Your task to perform on an android device: Go to Android settings Image 0: 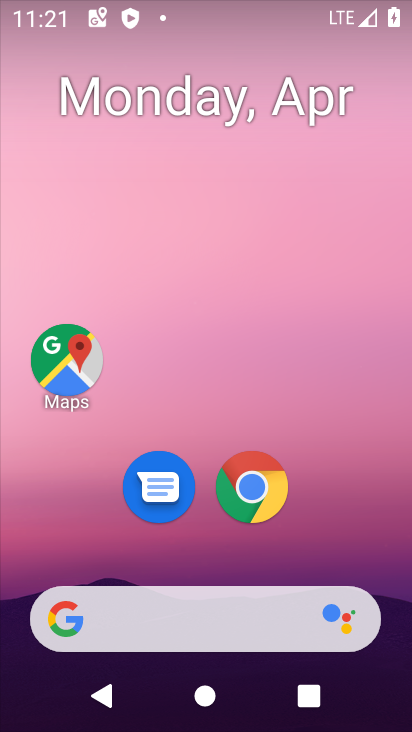
Step 0: drag from (350, 528) to (251, 142)
Your task to perform on an android device: Go to Android settings Image 1: 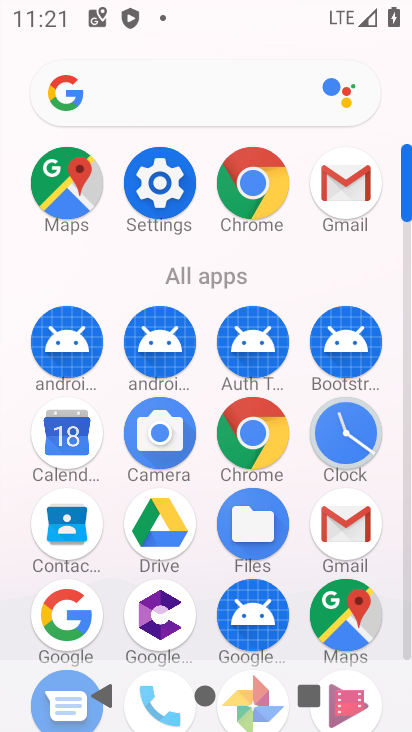
Step 1: click (406, 647)
Your task to perform on an android device: Go to Android settings Image 2: 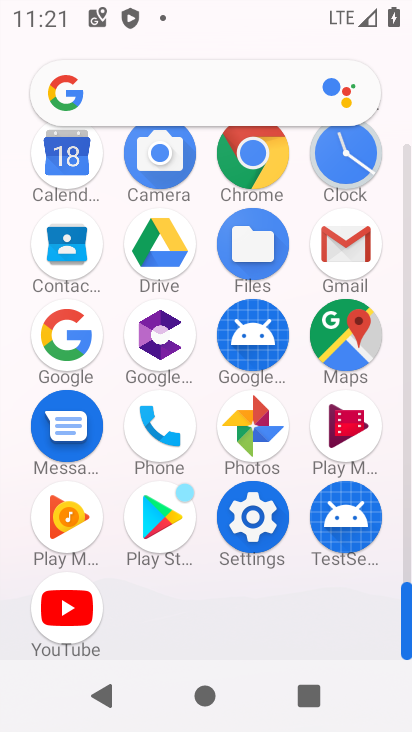
Step 2: click (260, 522)
Your task to perform on an android device: Go to Android settings Image 3: 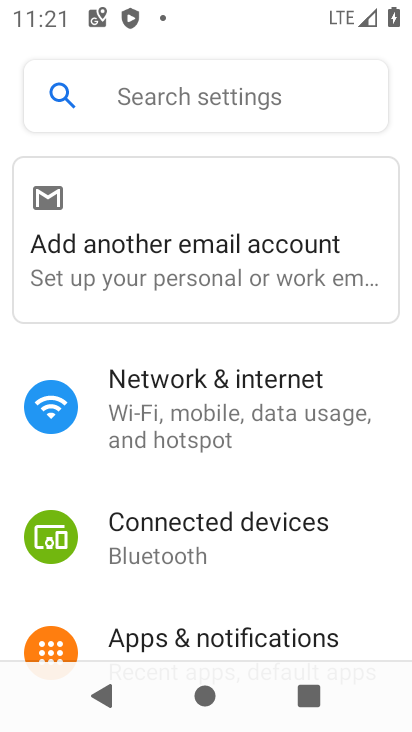
Step 3: drag from (405, 615) to (378, 184)
Your task to perform on an android device: Go to Android settings Image 4: 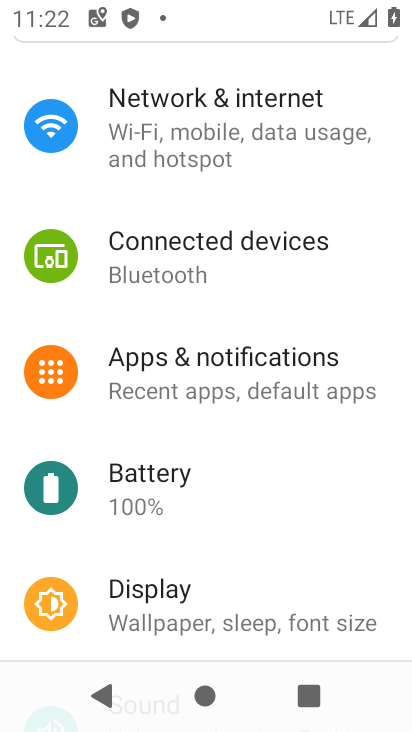
Step 4: drag from (290, 534) to (232, 135)
Your task to perform on an android device: Go to Android settings Image 5: 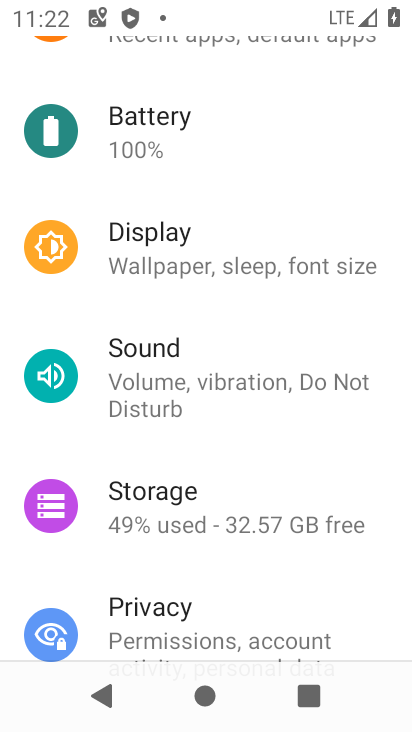
Step 5: drag from (296, 584) to (208, 156)
Your task to perform on an android device: Go to Android settings Image 6: 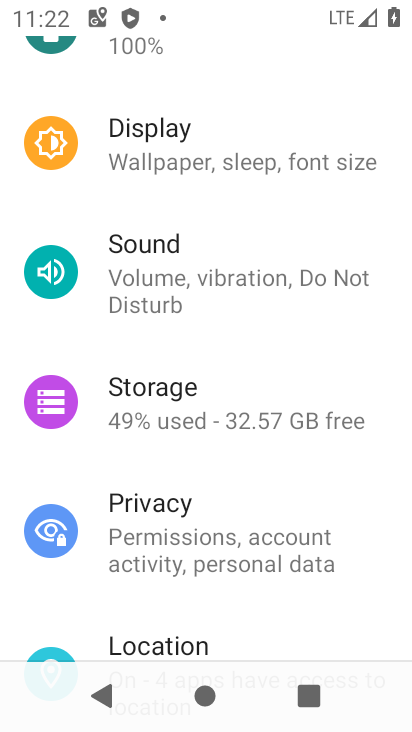
Step 6: drag from (276, 588) to (204, 137)
Your task to perform on an android device: Go to Android settings Image 7: 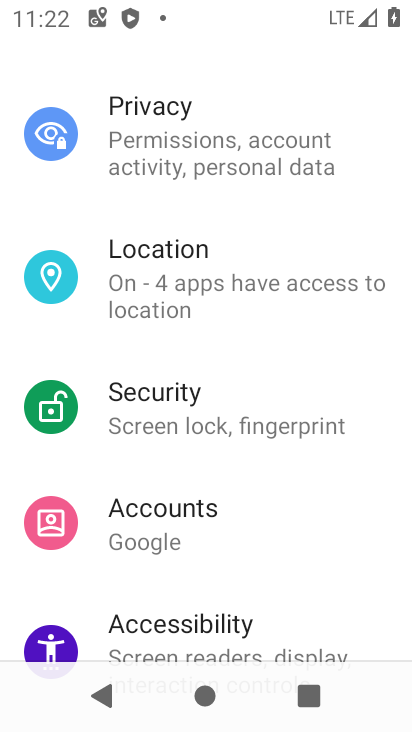
Step 7: drag from (300, 573) to (223, 135)
Your task to perform on an android device: Go to Android settings Image 8: 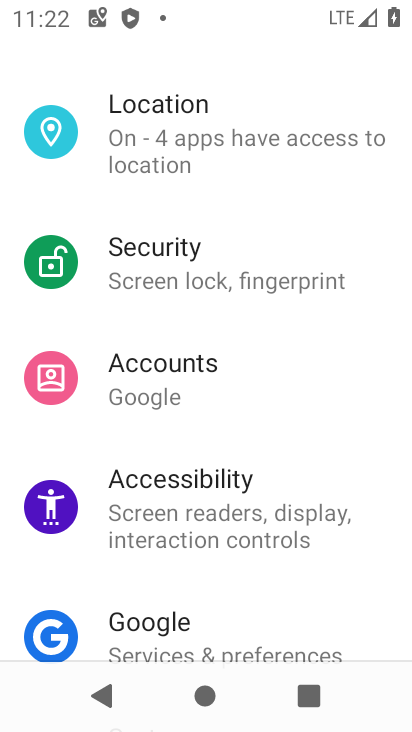
Step 8: drag from (280, 598) to (233, 200)
Your task to perform on an android device: Go to Android settings Image 9: 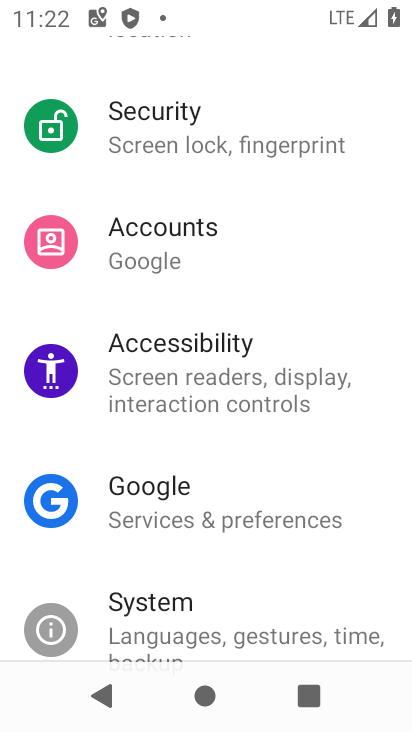
Step 9: drag from (317, 556) to (266, 273)
Your task to perform on an android device: Go to Android settings Image 10: 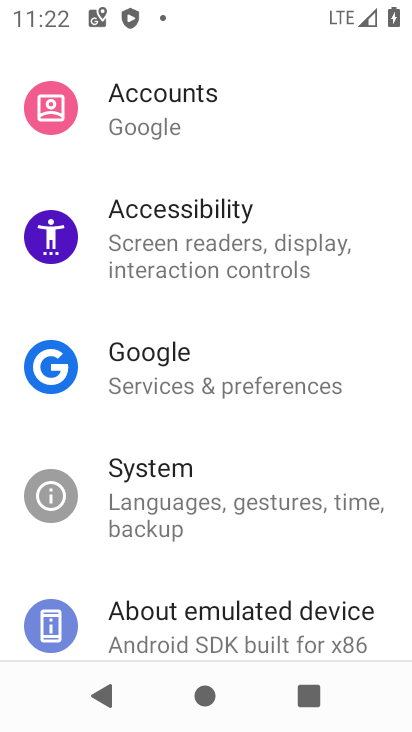
Step 10: drag from (287, 565) to (197, 147)
Your task to perform on an android device: Go to Android settings Image 11: 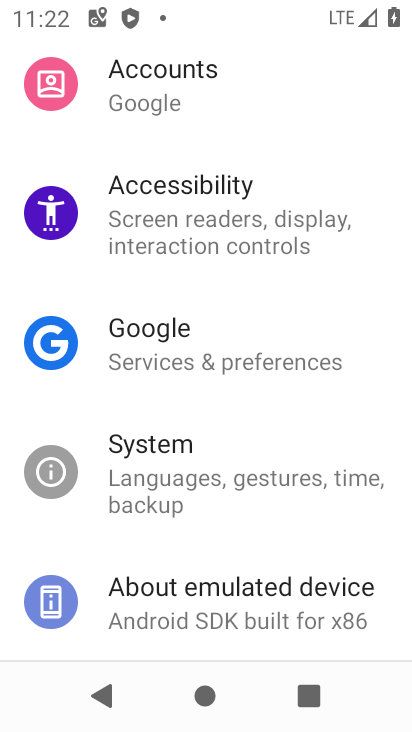
Step 11: click (290, 620)
Your task to perform on an android device: Go to Android settings Image 12: 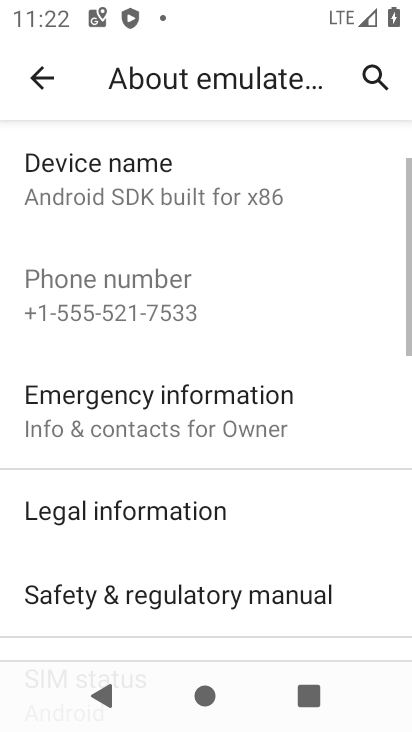
Step 12: drag from (312, 548) to (278, 121)
Your task to perform on an android device: Go to Android settings Image 13: 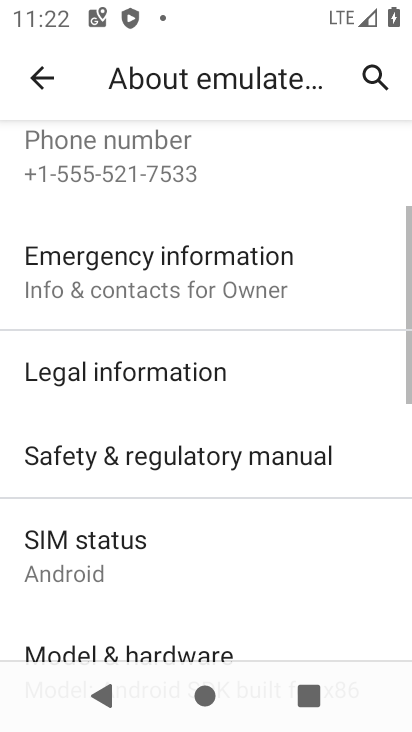
Step 13: drag from (326, 597) to (283, 259)
Your task to perform on an android device: Go to Android settings Image 14: 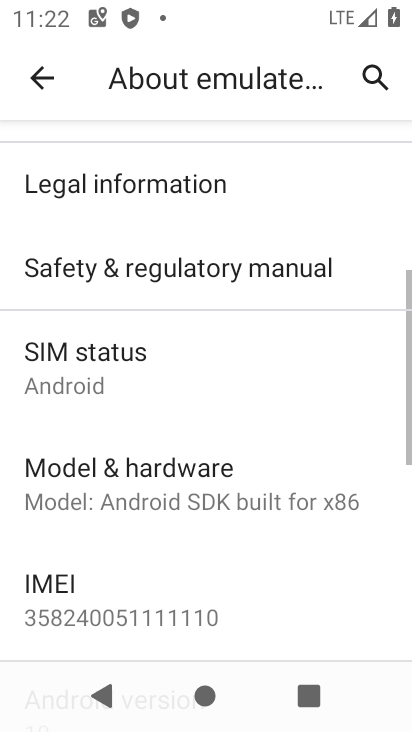
Step 14: drag from (303, 565) to (283, 205)
Your task to perform on an android device: Go to Android settings Image 15: 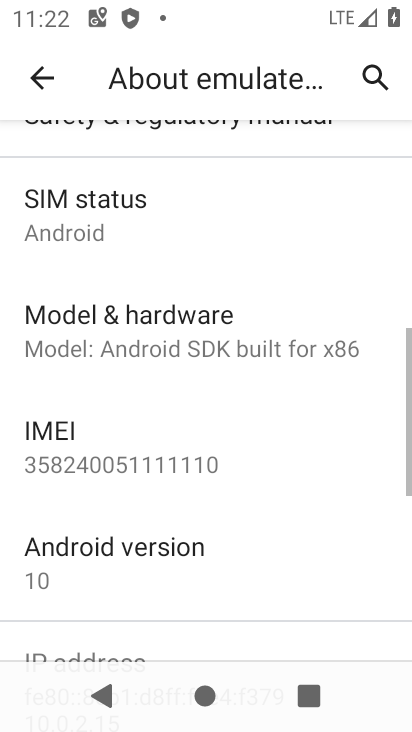
Step 15: click (256, 596)
Your task to perform on an android device: Go to Android settings Image 16: 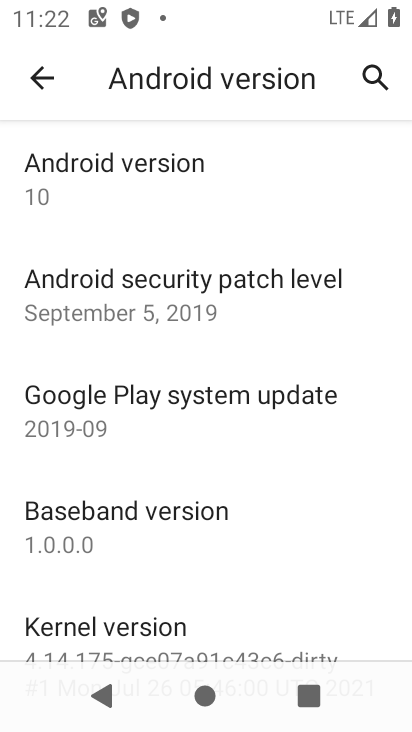
Step 16: task complete